Your task to perform on an android device: empty trash in google photos Image 0: 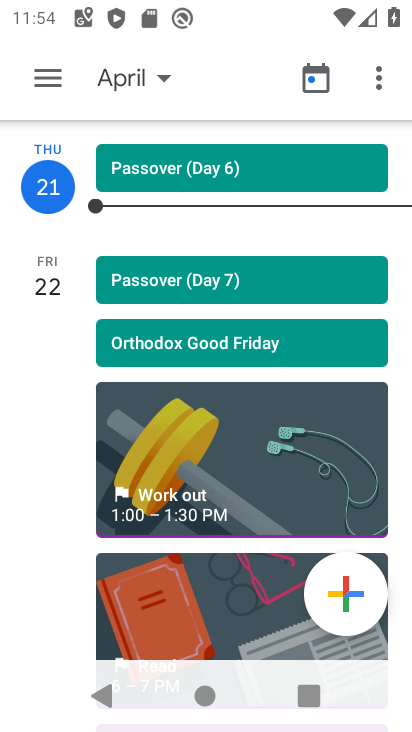
Step 0: press home button
Your task to perform on an android device: empty trash in google photos Image 1: 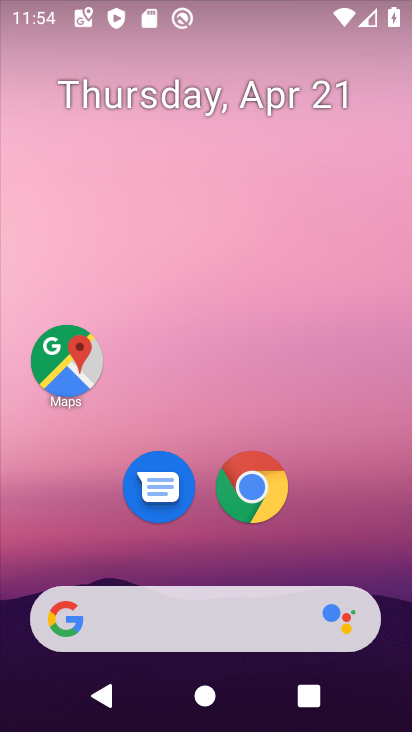
Step 1: drag from (192, 565) to (153, 0)
Your task to perform on an android device: empty trash in google photos Image 2: 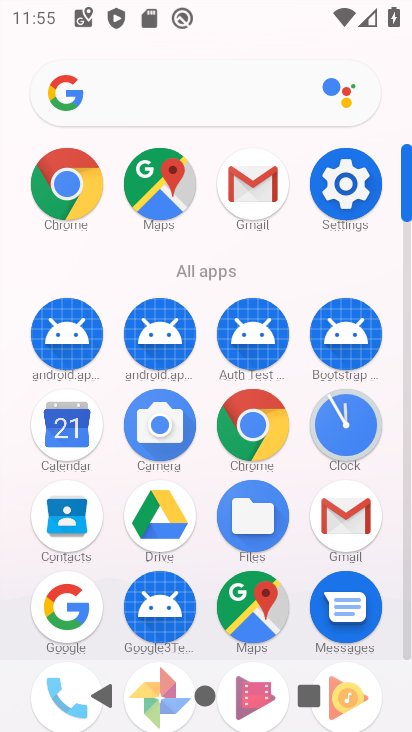
Step 2: drag from (210, 570) to (206, 314)
Your task to perform on an android device: empty trash in google photos Image 3: 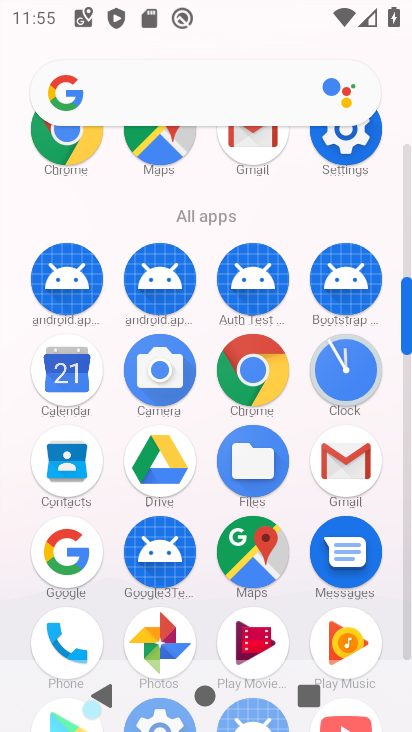
Step 3: drag from (111, 193) to (220, 689)
Your task to perform on an android device: empty trash in google photos Image 4: 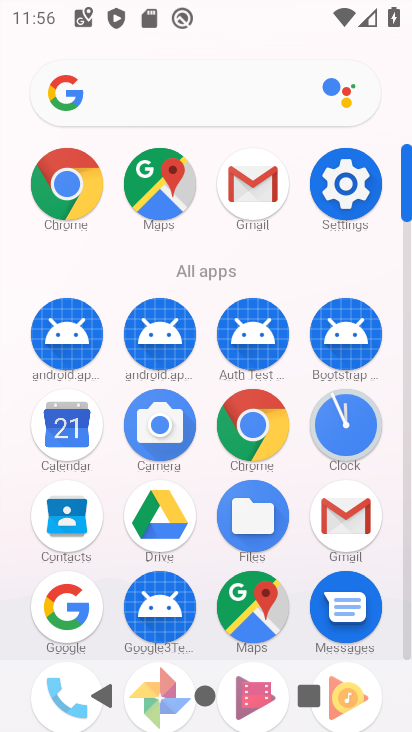
Step 4: drag from (202, 580) to (196, 125)
Your task to perform on an android device: empty trash in google photos Image 5: 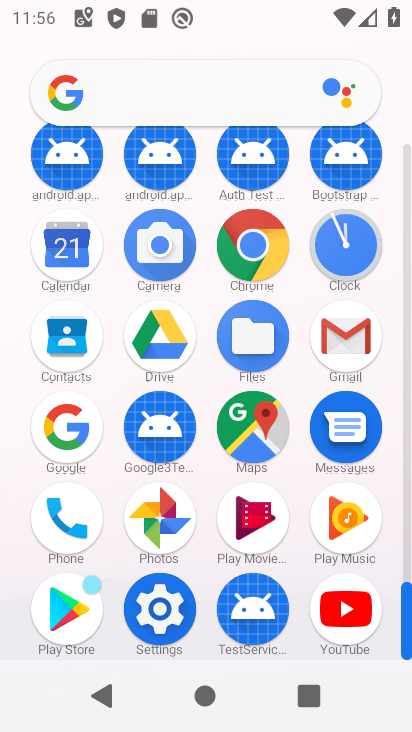
Step 5: click (175, 502)
Your task to perform on an android device: empty trash in google photos Image 6: 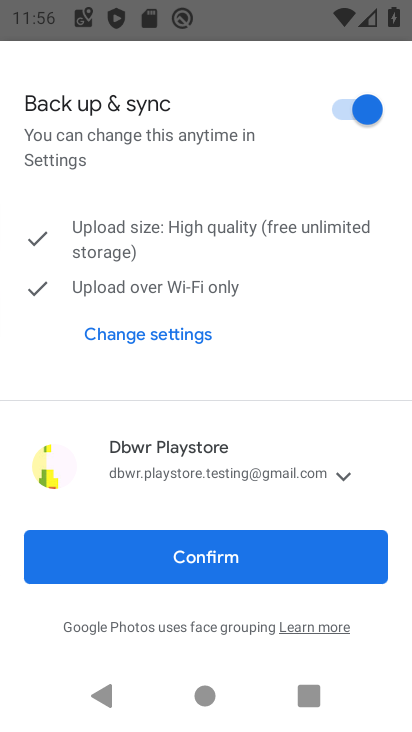
Step 6: click (219, 556)
Your task to perform on an android device: empty trash in google photos Image 7: 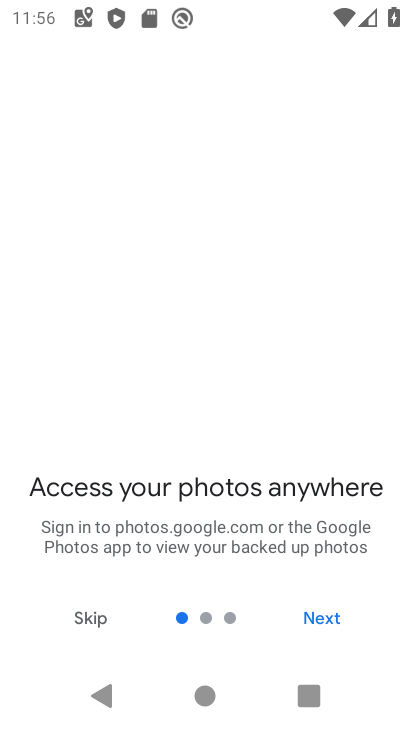
Step 7: click (318, 641)
Your task to perform on an android device: empty trash in google photos Image 8: 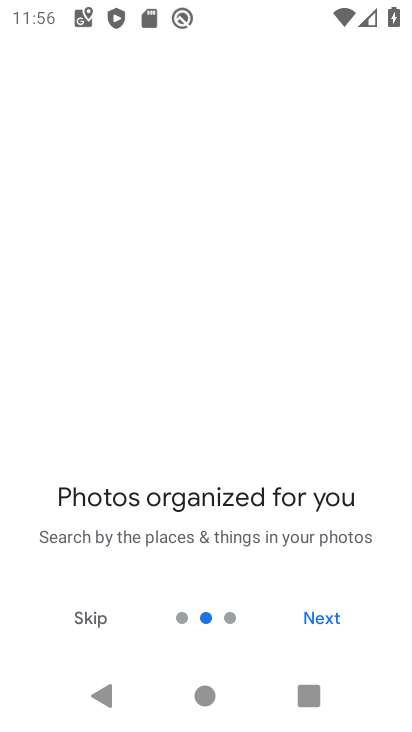
Step 8: click (335, 617)
Your task to perform on an android device: empty trash in google photos Image 9: 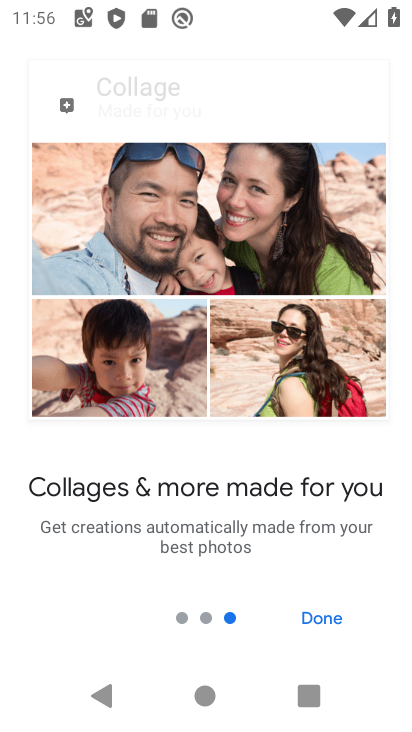
Step 9: click (335, 617)
Your task to perform on an android device: empty trash in google photos Image 10: 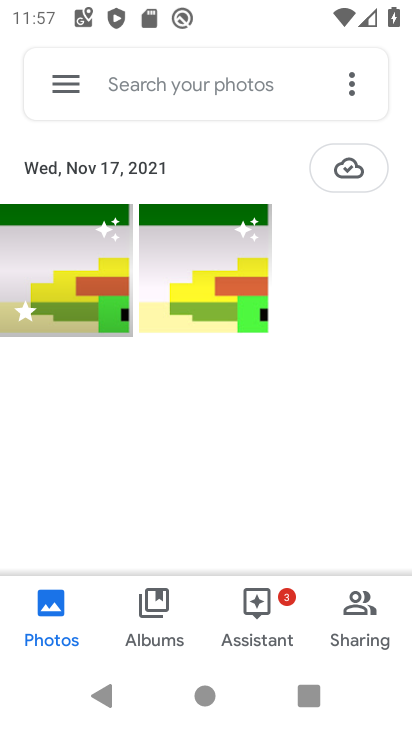
Step 10: click (69, 76)
Your task to perform on an android device: empty trash in google photos Image 11: 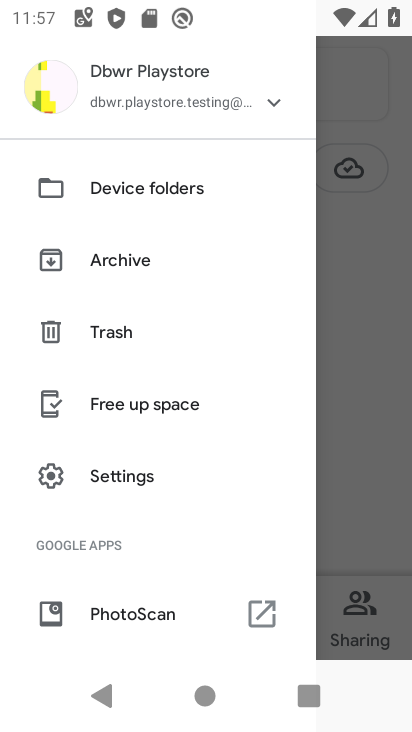
Step 11: click (158, 337)
Your task to perform on an android device: empty trash in google photos Image 12: 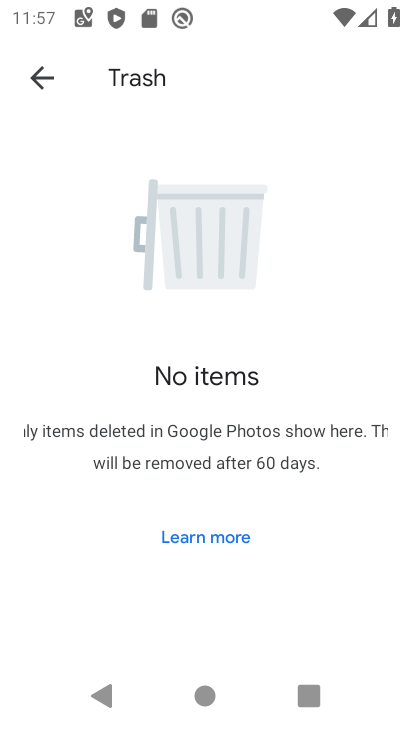
Step 12: task complete